Your task to perform on an android device: Open calendar and show me the third week of next month Image 0: 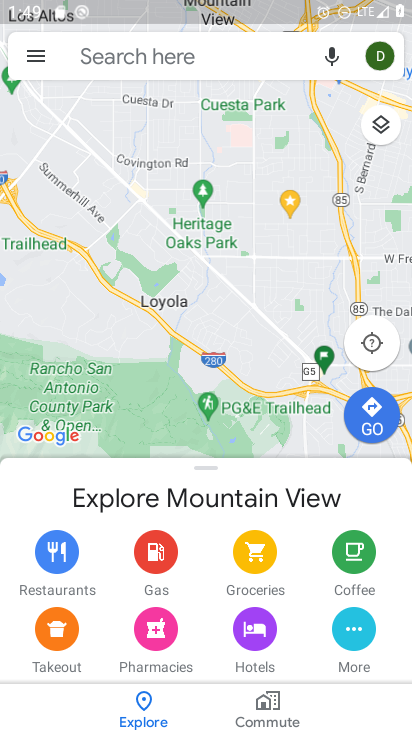
Step 0: press home button
Your task to perform on an android device: Open calendar and show me the third week of next month Image 1: 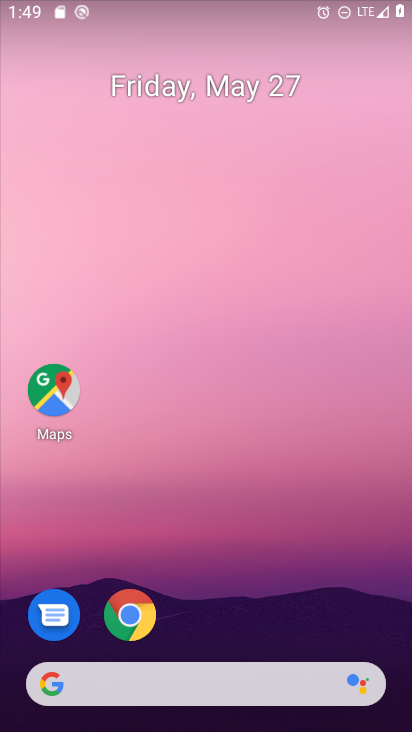
Step 1: drag from (284, 661) to (241, 4)
Your task to perform on an android device: Open calendar and show me the third week of next month Image 2: 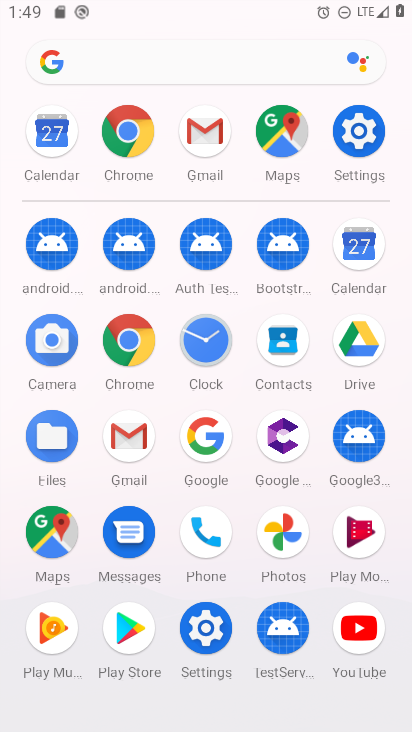
Step 2: click (374, 254)
Your task to perform on an android device: Open calendar and show me the third week of next month Image 3: 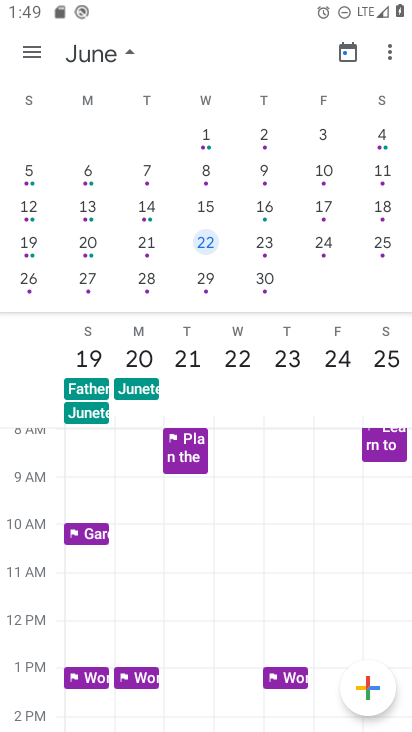
Step 3: click (203, 208)
Your task to perform on an android device: Open calendar and show me the third week of next month Image 4: 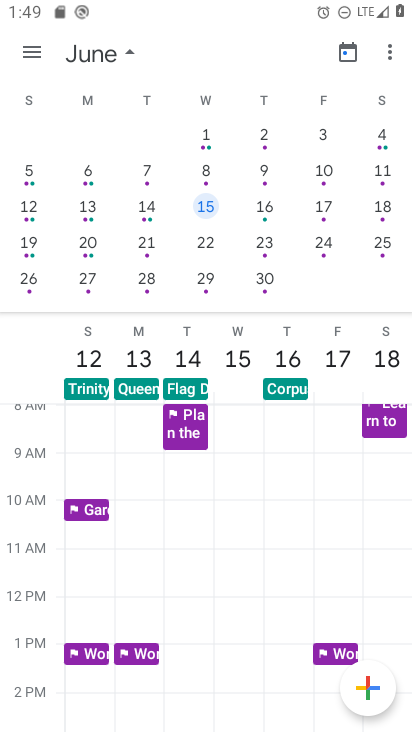
Step 4: task complete